Your task to perform on an android device: change timer sound Image 0: 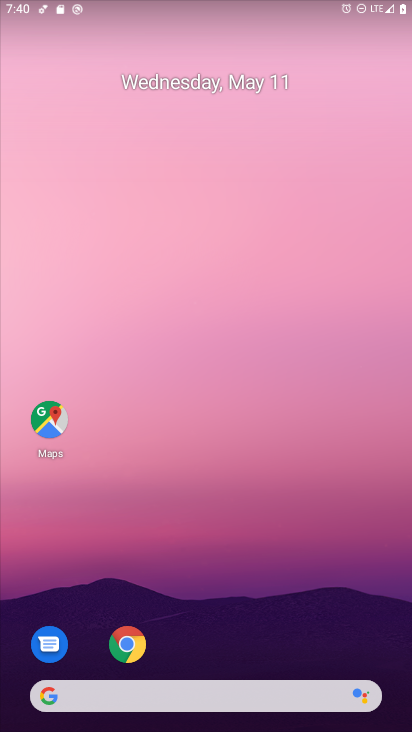
Step 0: drag from (188, 560) to (194, 113)
Your task to perform on an android device: change timer sound Image 1: 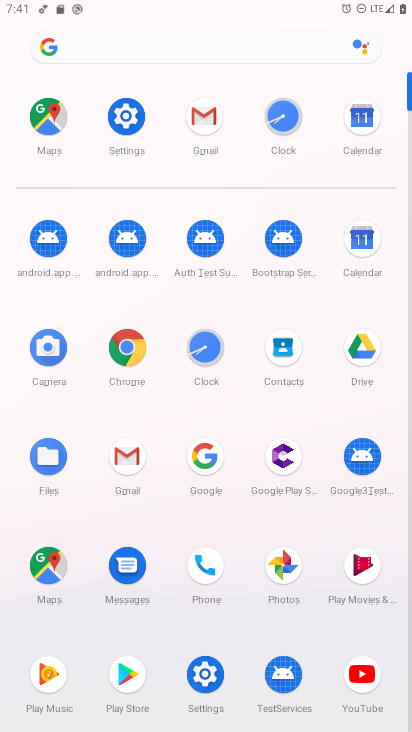
Step 1: click (280, 118)
Your task to perform on an android device: change timer sound Image 2: 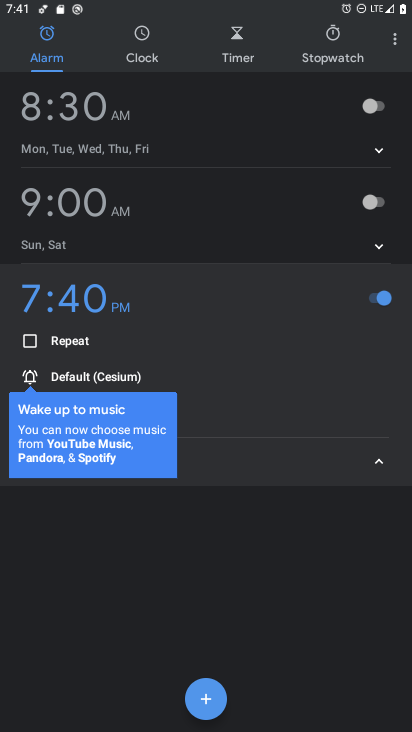
Step 2: click (396, 39)
Your task to perform on an android device: change timer sound Image 3: 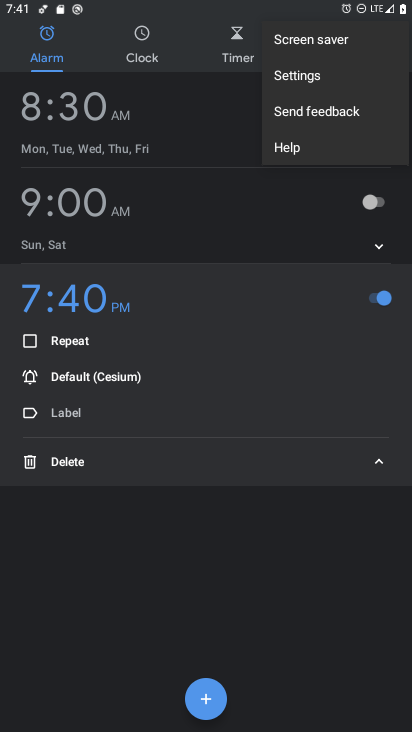
Step 3: click (294, 77)
Your task to perform on an android device: change timer sound Image 4: 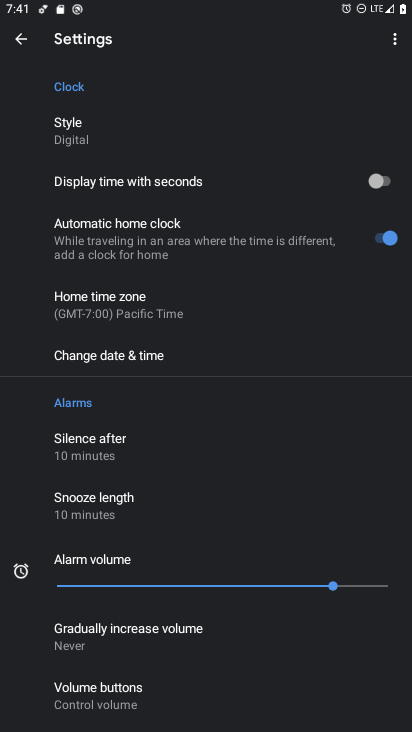
Step 4: drag from (201, 638) to (183, 164)
Your task to perform on an android device: change timer sound Image 5: 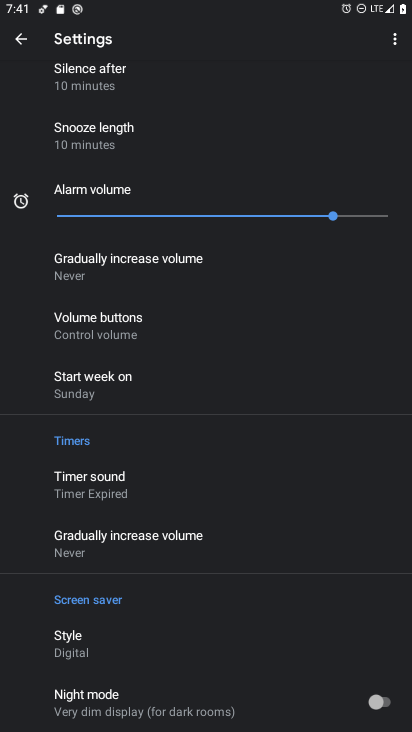
Step 5: click (99, 477)
Your task to perform on an android device: change timer sound Image 6: 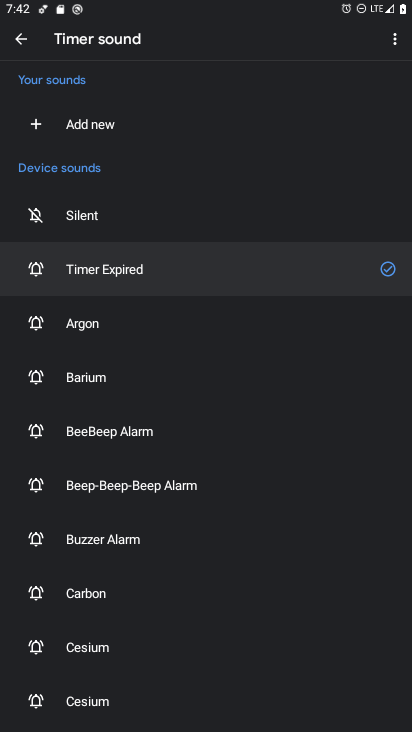
Step 6: click (88, 331)
Your task to perform on an android device: change timer sound Image 7: 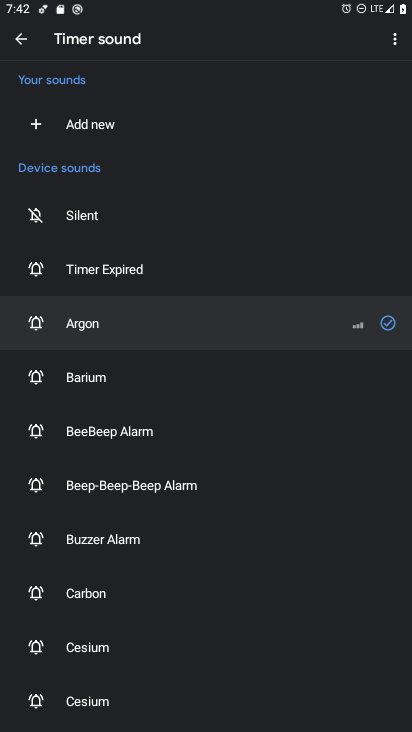
Step 7: task complete